Your task to perform on an android device: toggle priority inbox in the gmail app Image 0: 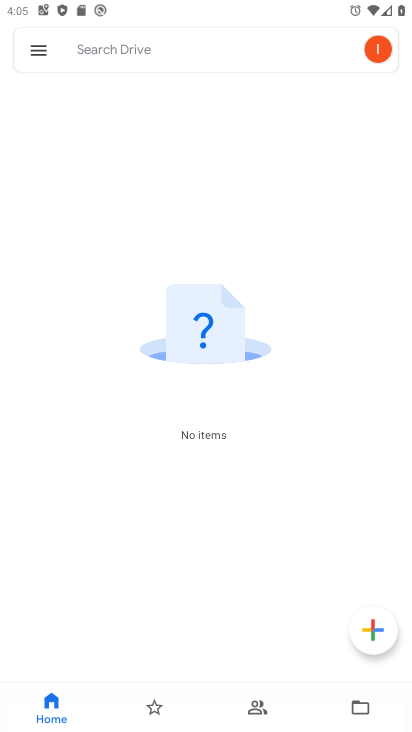
Step 0: press home button
Your task to perform on an android device: toggle priority inbox in the gmail app Image 1: 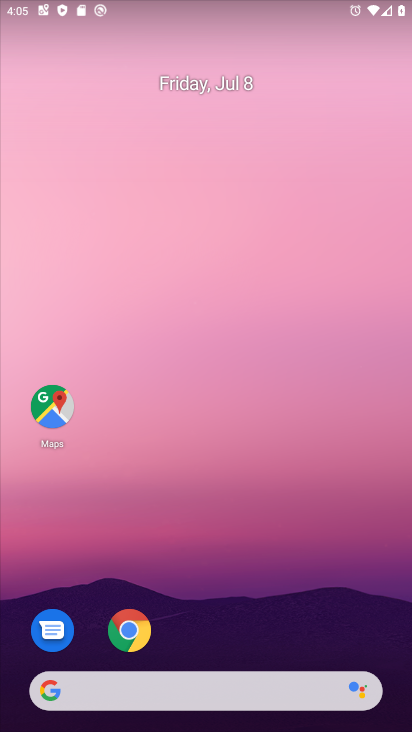
Step 1: drag from (209, 681) to (167, 128)
Your task to perform on an android device: toggle priority inbox in the gmail app Image 2: 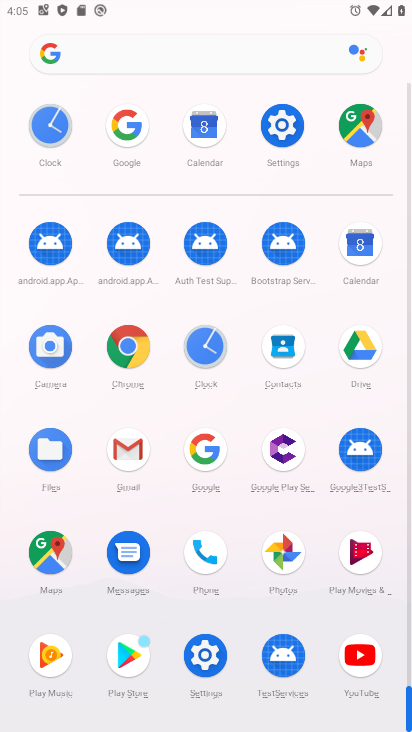
Step 2: click (127, 450)
Your task to perform on an android device: toggle priority inbox in the gmail app Image 3: 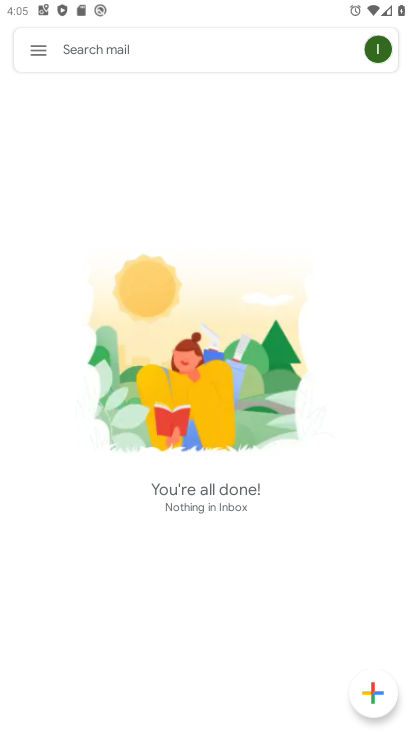
Step 3: click (40, 54)
Your task to perform on an android device: toggle priority inbox in the gmail app Image 4: 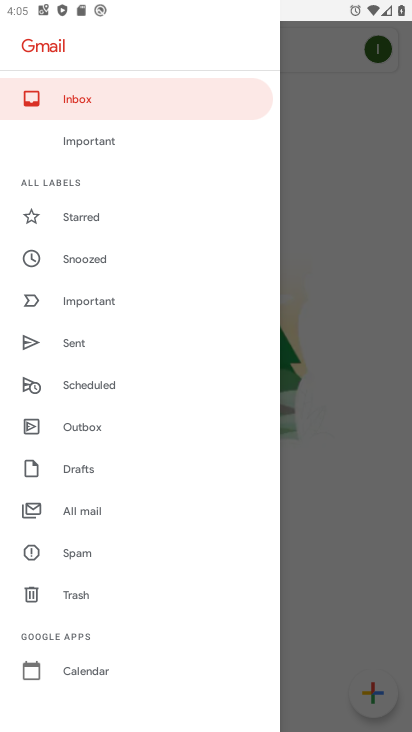
Step 4: drag from (91, 568) to (105, 482)
Your task to perform on an android device: toggle priority inbox in the gmail app Image 5: 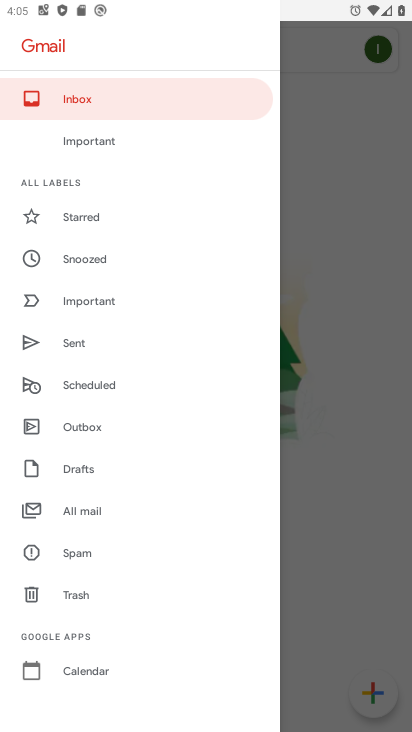
Step 5: drag from (83, 652) to (83, 426)
Your task to perform on an android device: toggle priority inbox in the gmail app Image 6: 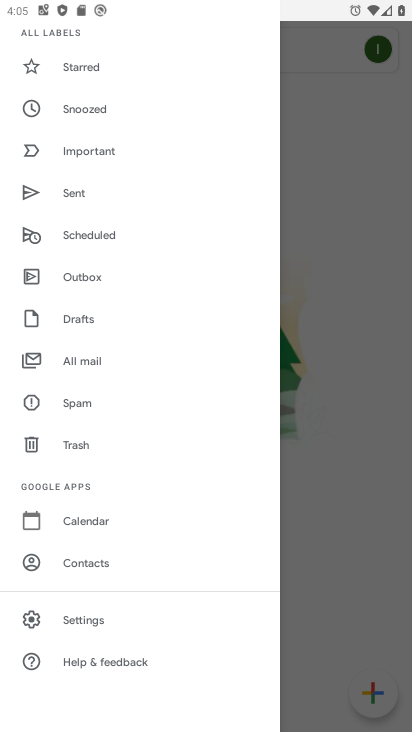
Step 6: click (84, 614)
Your task to perform on an android device: toggle priority inbox in the gmail app Image 7: 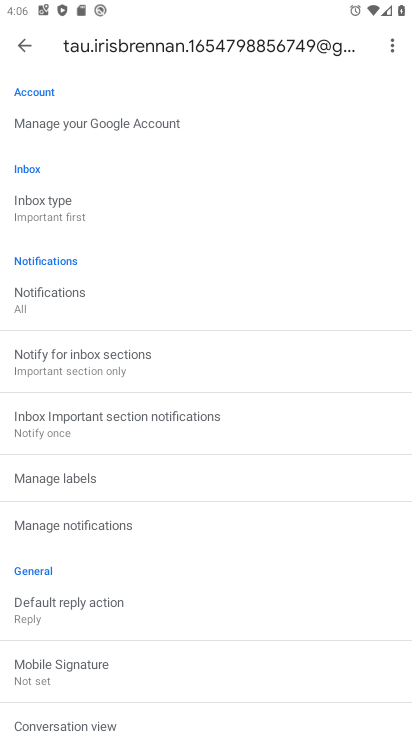
Step 7: click (58, 211)
Your task to perform on an android device: toggle priority inbox in the gmail app Image 8: 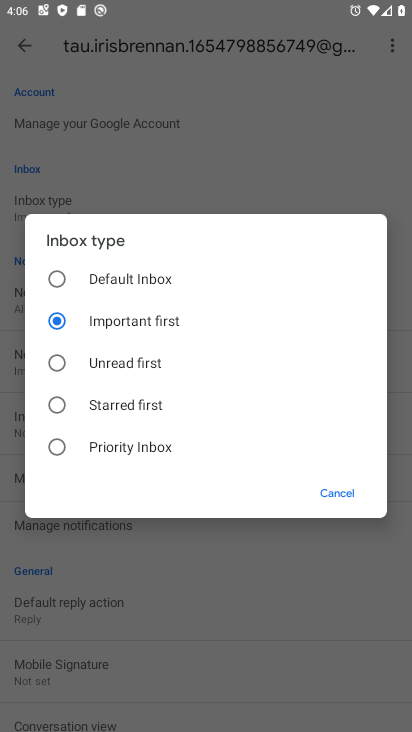
Step 8: click (52, 447)
Your task to perform on an android device: toggle priority inbox in the gmail app Image 9: 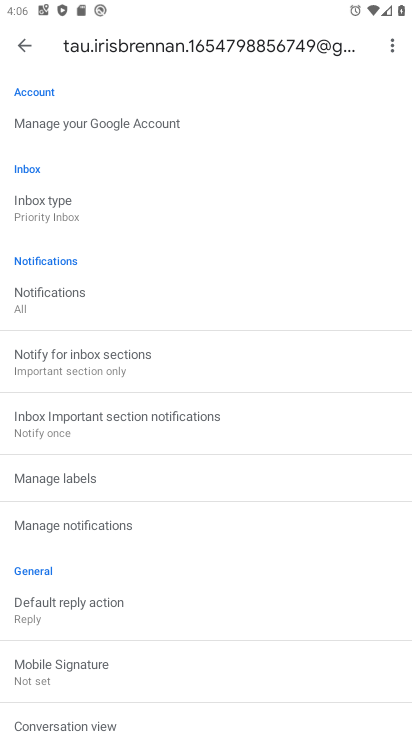
Step 9: task complete